Your task to perform on an android device: Go to wifi settings Image 0: 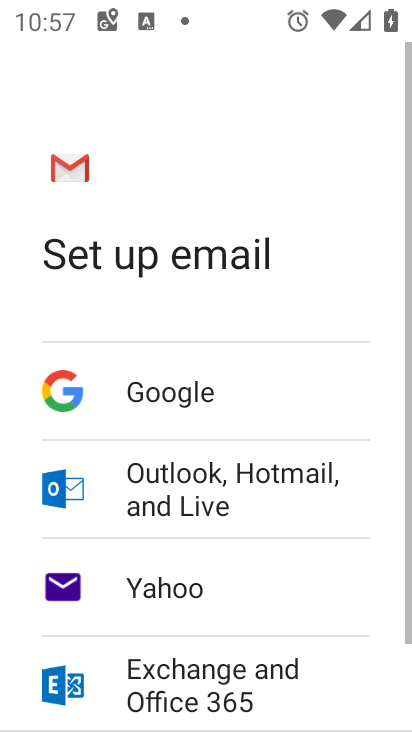
Step 0: press home button
Your task to perform on an android device: Go to wifi settings Image 1: 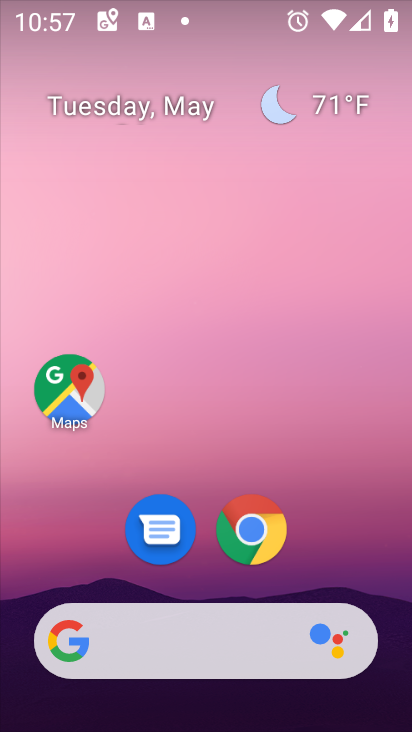
Step 1: drag from (133, 629) to (149, 2)
Your task to perform on an android device: Go to wifi settings Image 2: 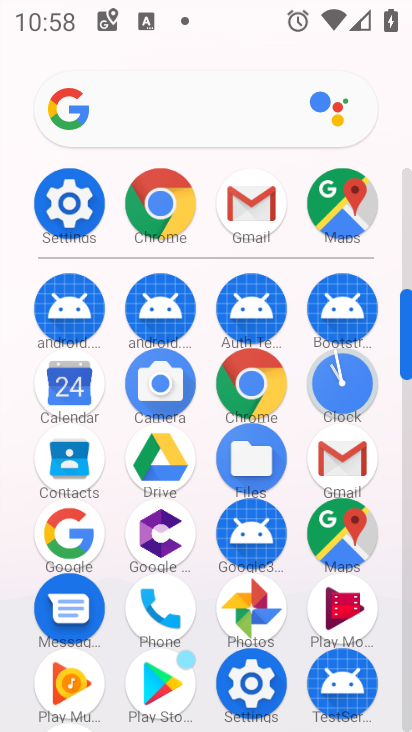
Step 2: click (77, 222)
Your task to perform on an android device: Go to wifi settings Image 3: 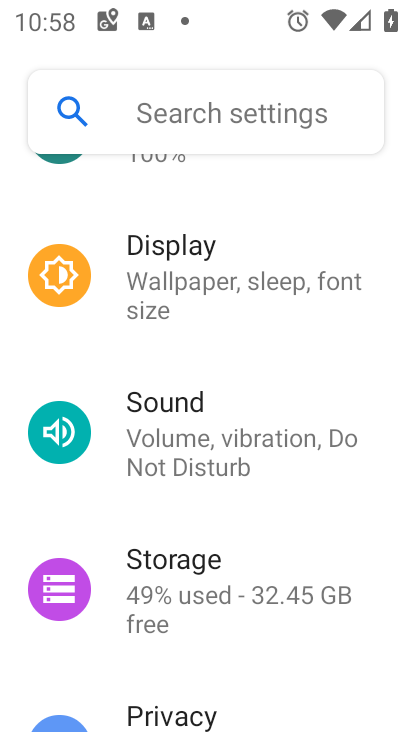
Step 3: drag from (153, 299) to (168, 726)
Your task to perform on an android device: Go to wifi settings Image 4: 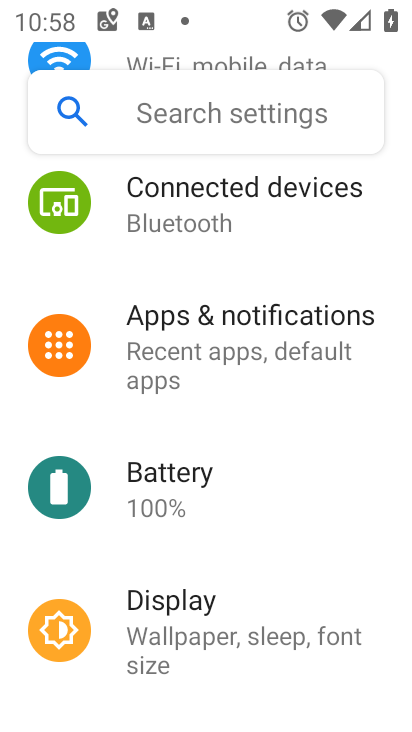
Step 4: drag from (226, 315) to (206, 723)
Your task to perform on an android device: Go to wifi settings Image 5: 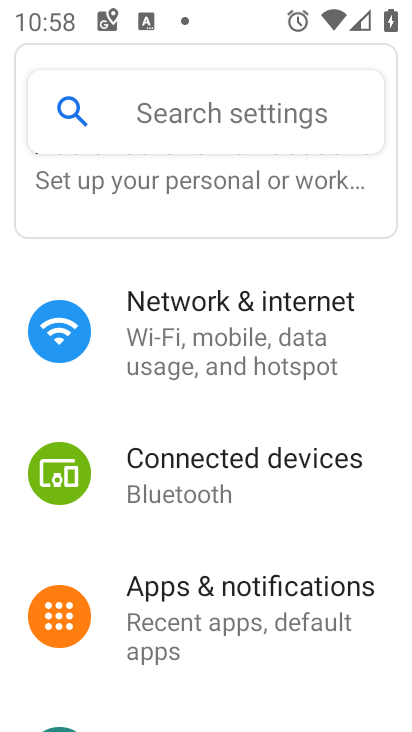
Step 5: click (223, 339)
Your task to perform on an android device: Go to wifi settings Image 6: 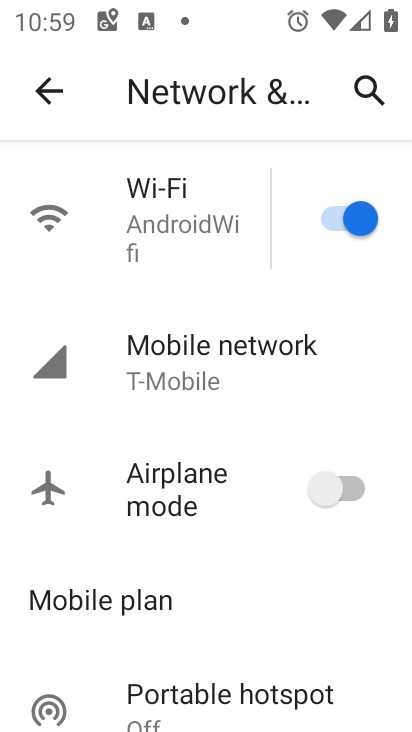
Step 6: click (138, 229)
Your task to perform on an android device: Go to wifi settings Image 7: 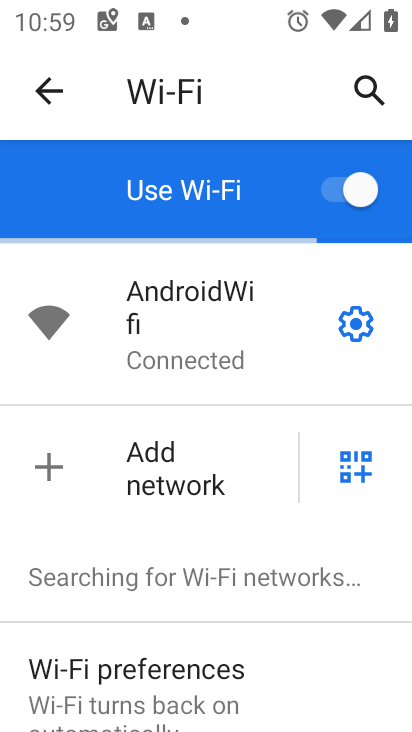
Step 7: task complete